Your task to perform on an android device: change the clock display to show seconds Image 0: 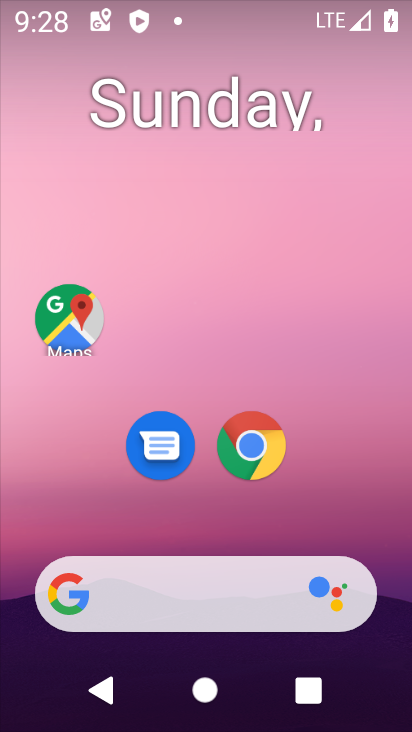
Step 0: drag from (361, 365) to (291, 58)
Your task to perform on an android device: change the clock display to show seconds Image 1: 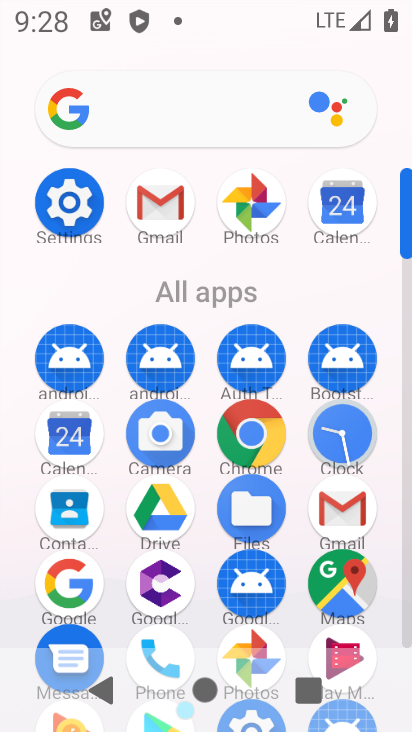
Step 1: click (338, 430)
Your task to perform on an android device: change the clock display to show seconds Image 2: 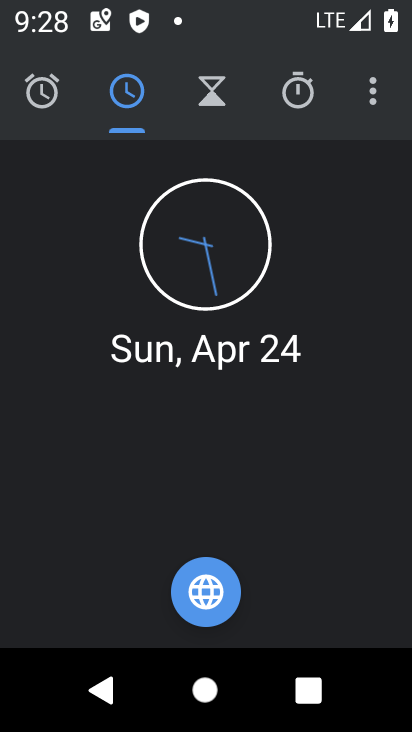
Step 2: click (369, 103)
Your task to perform on an android device: change the clock display to show seconds Image 3: 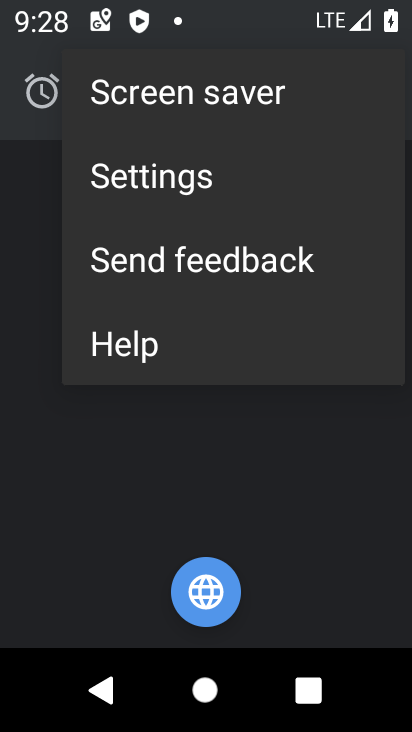
Step 3: click (150, 183)
Your task to perform on an android device: change the clock display to show seconds Image 4: 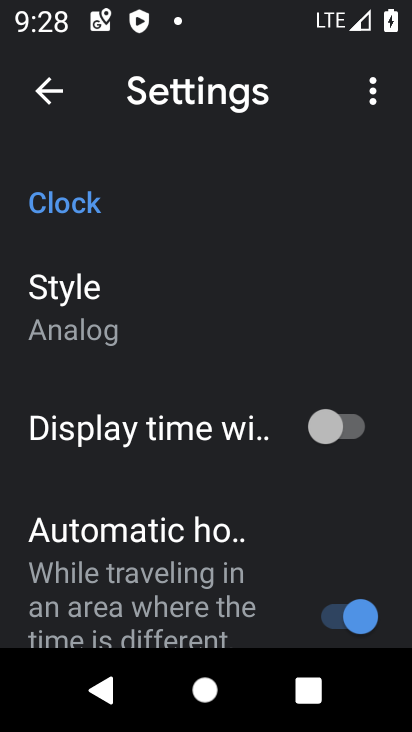
Step 4: click (333, 421)
Your task to perform on an android device: change the clock display to show seconds Image 5: 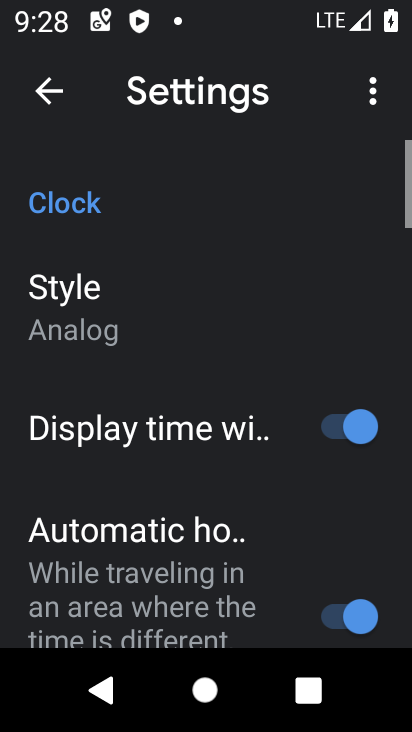
Step 5: click (353, 421)
Your task to perform on an android device: change the clock display to show seconds Image 6: 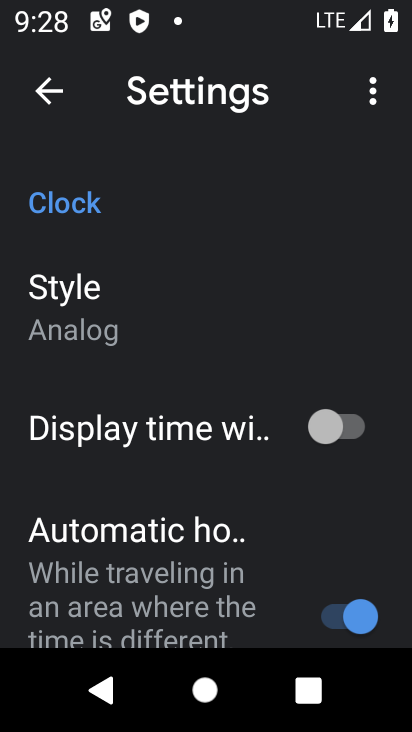
Step 6: task complete